Your task to perform on an android device: Open network settings Image 0: 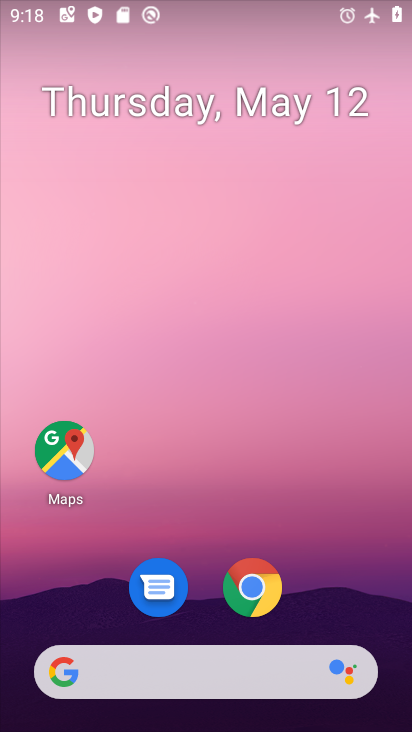
Step 0: drag from (318, 562) to (318, 302)
Your task to perform on an android device: Open network settings Image 1: 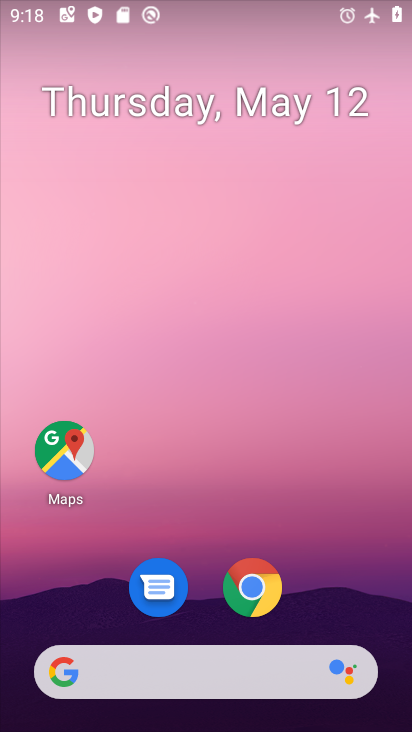
Step 1: drag from (334, 585) to (306, 320)
Your task to perform on an android device: Open network settings Image 2: 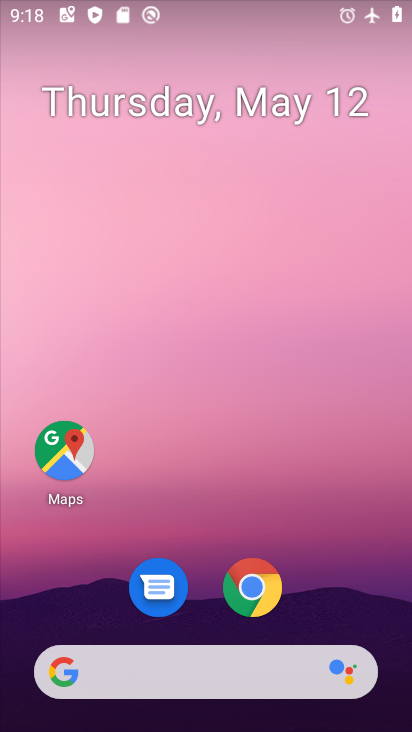
Step 2: drag from (320, 594) to (322, 196)
Your task to perform on an android device: Open network settings Image 3: 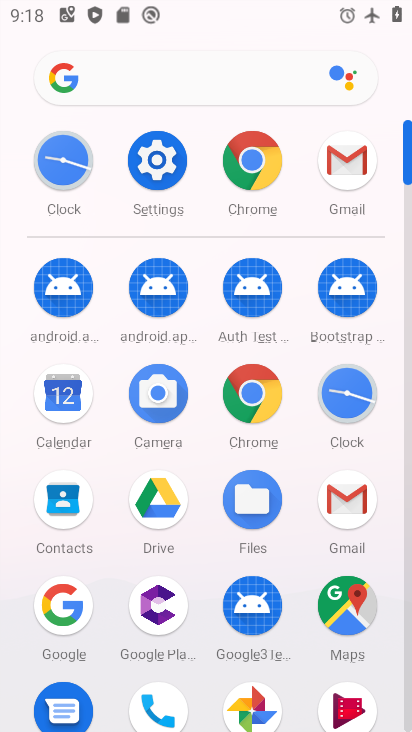
Step 3: click (141, 158)
Your task to perform on an android device: Open network settings Image 4: 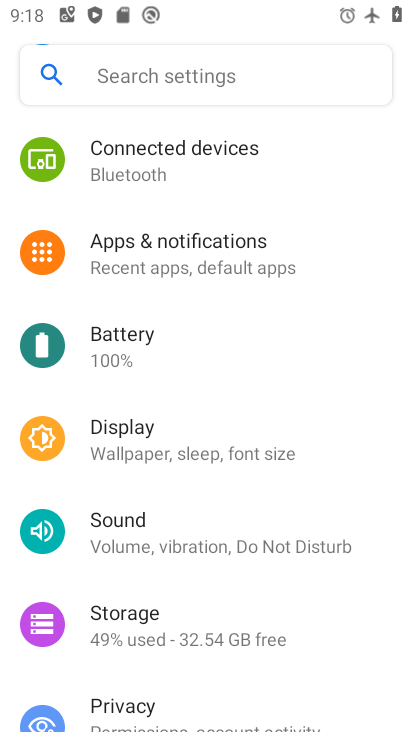
Step 4: drag from (240, 206) to (246, 666)
Your task to perform on an android device: Open network settings Image 5: 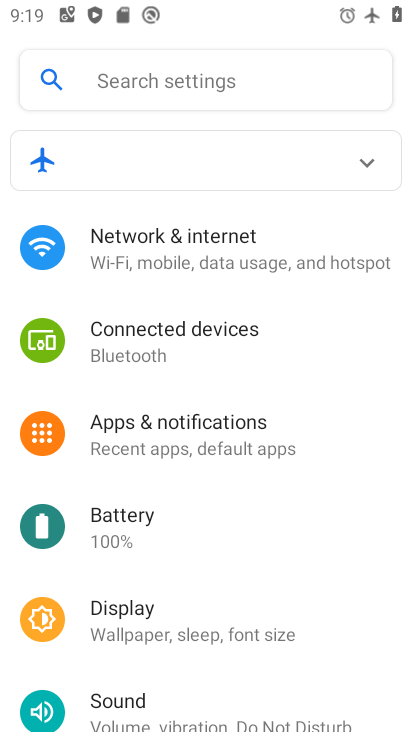
Step 5: click (209, 254)
Your task to perform on an android device: Open network settings Image 6: 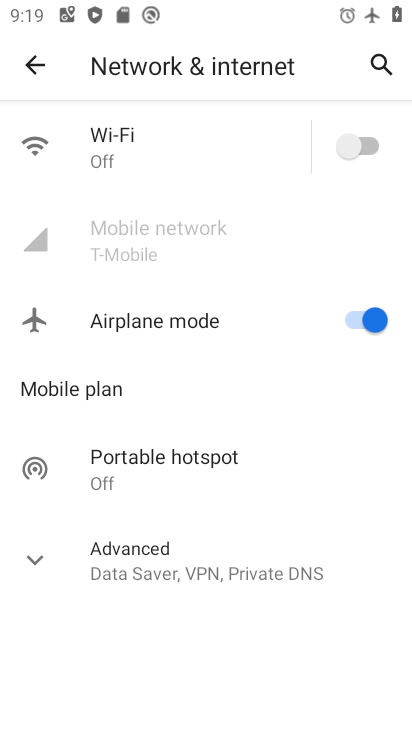
Step 6: task complete